Your task to perform on an android device: Open maps Image 0: 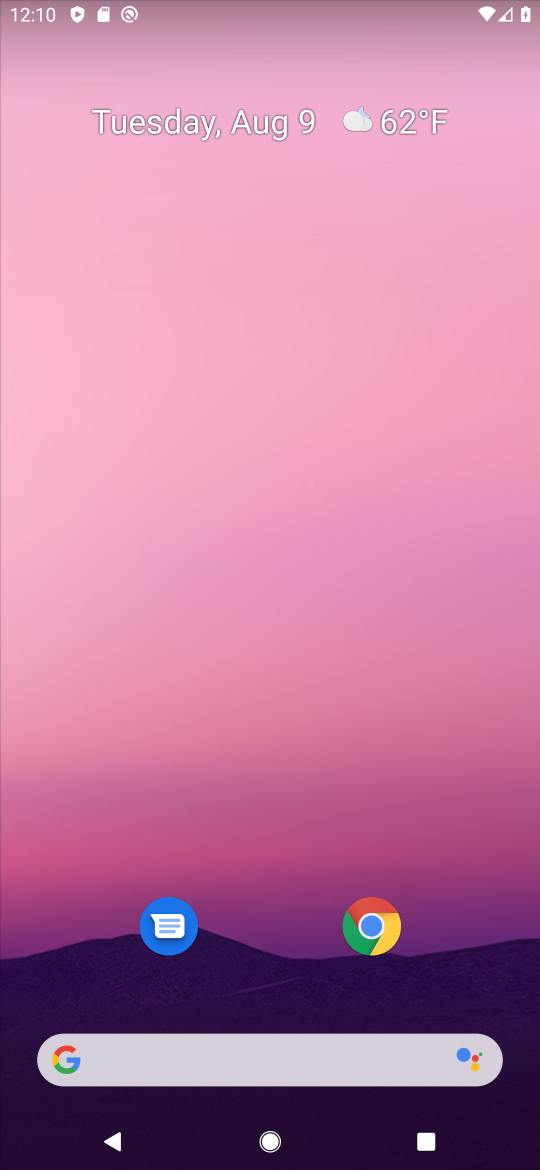
Step 0: drag from (65, 895) to (359, 212)
Your task to perform on an android device: Open maps Image 1: 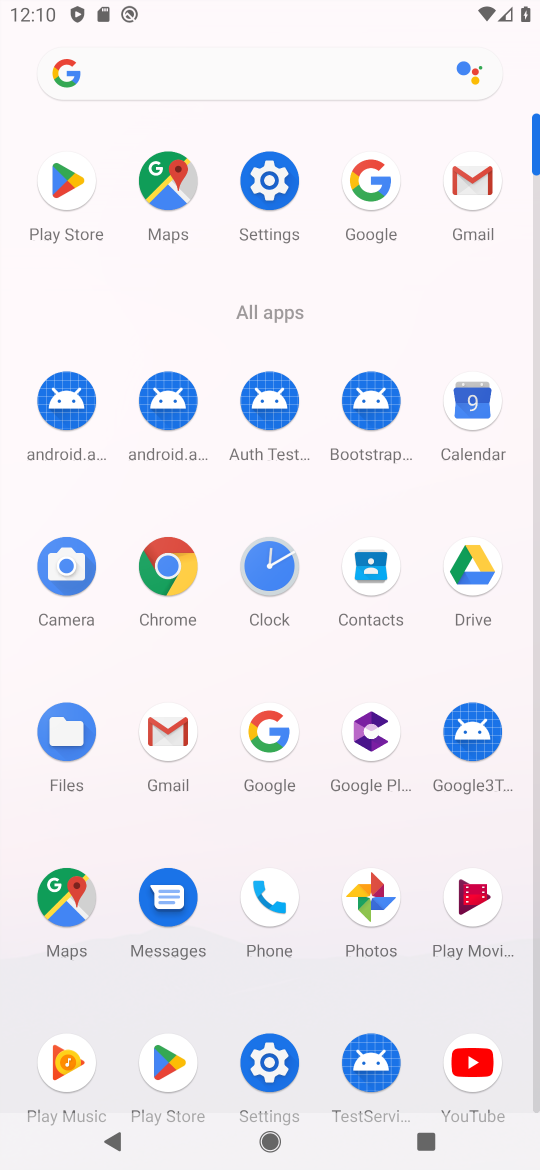
Step 1: click (186, 181)
Your task to perform on an android device: Open maps Image 2: 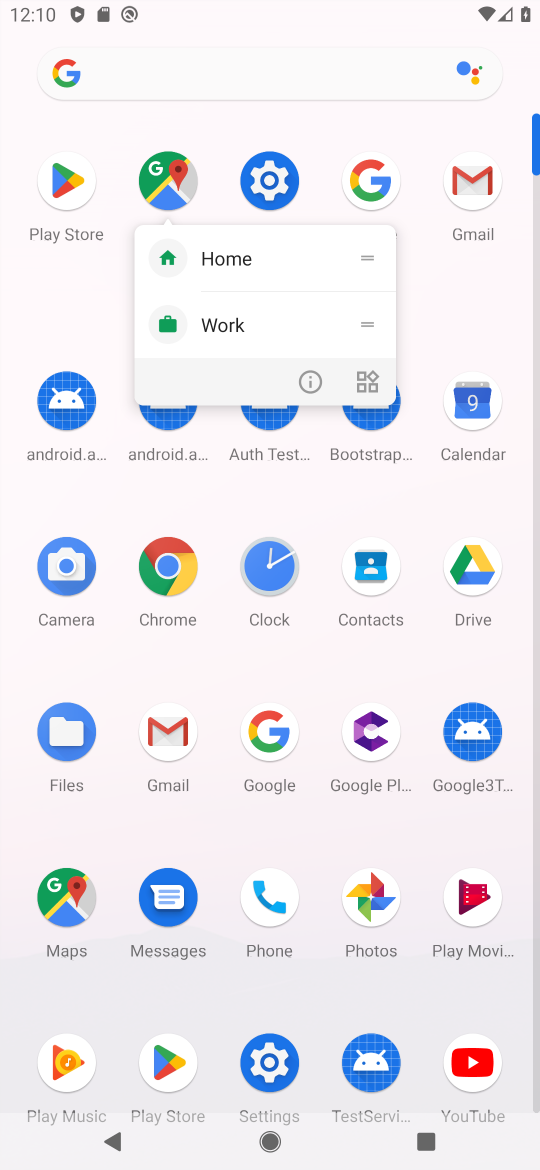
Step 2: click (173, 172)
Your task to perform on an android device: Open maps Image 3: 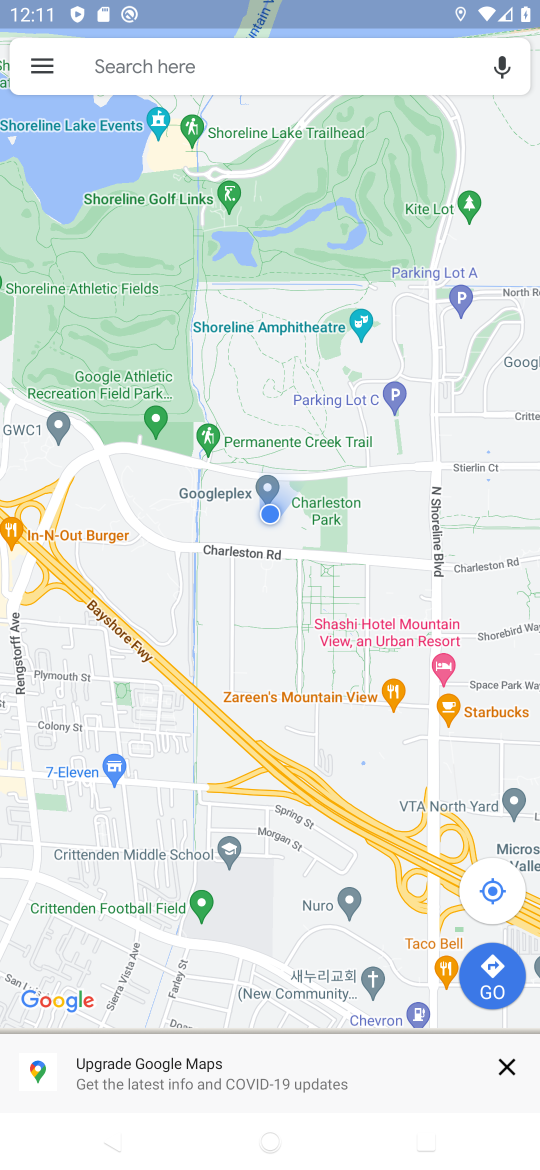
Step 3: click (518, 1101)
Your task to perform on an android device: Open maps Image 4: 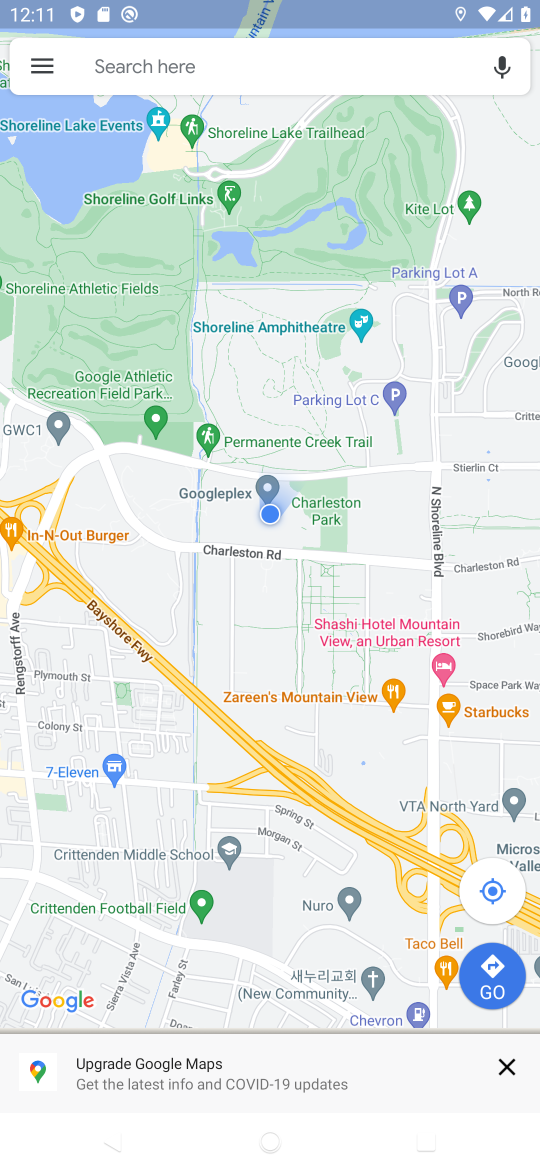
Step 4: click (513, 1065)
Your task to perform on an android device: Open maps Image 5: 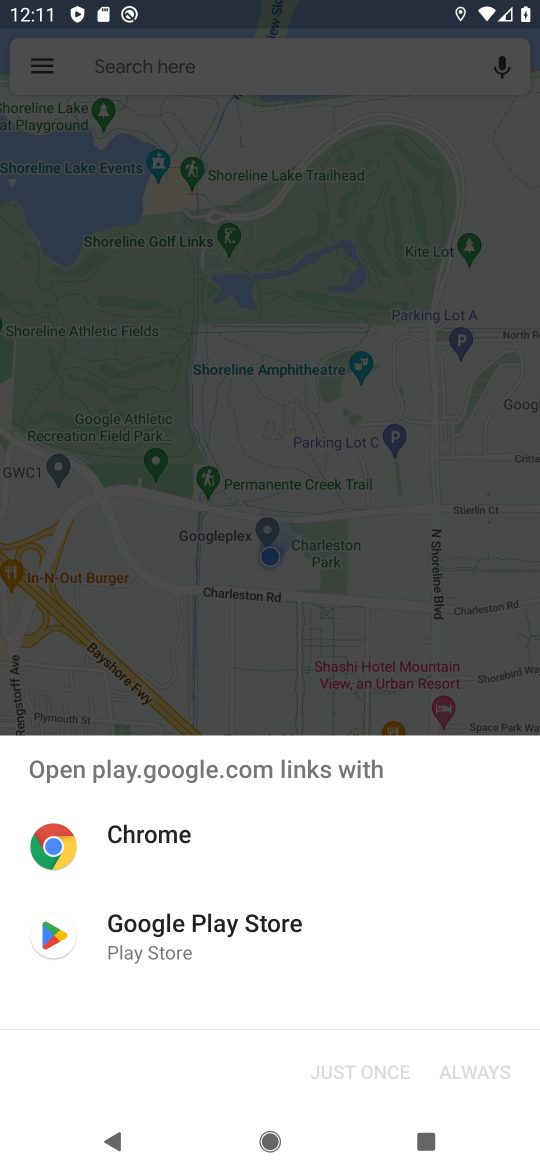
Step 5: task complete